Your task to perform on an android device: turn on location history Image 0: 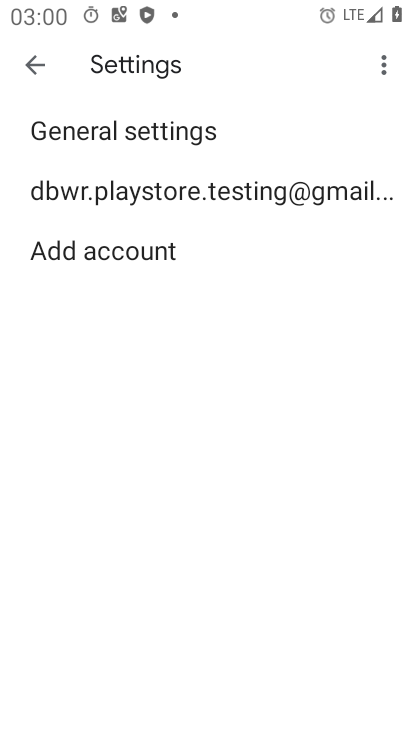
Step 0: press back button
Your task to perform on an android device: turn on location history Image 1: 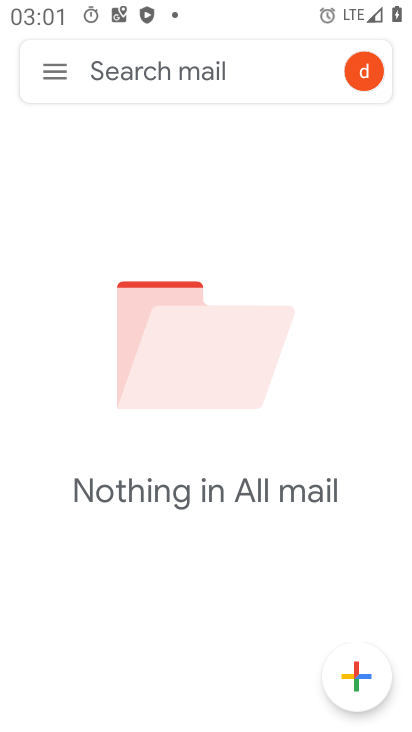
Step 1: press back button
Your task to perform on an android device: turn on location history Image 2: 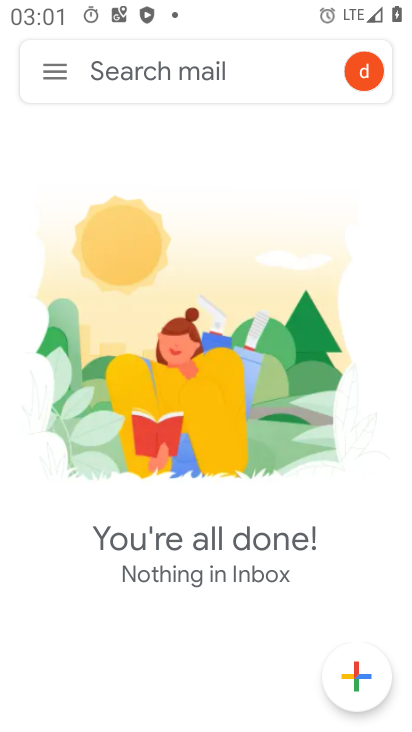
Step 2: press home button
Your task to perform on an android device: turn on location history Image 3: 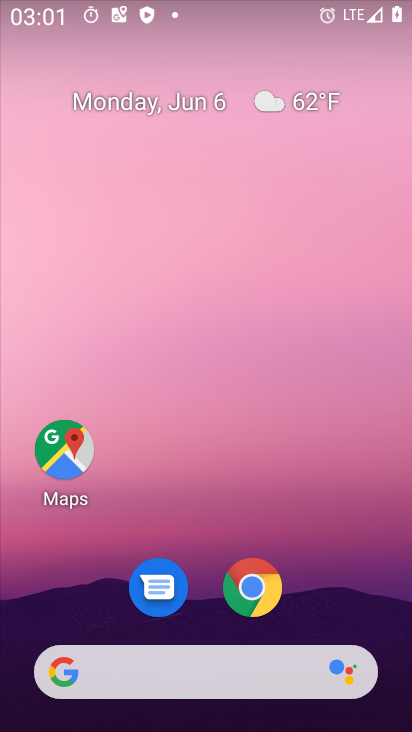
Step 3: drag from (367, 597) to (227, 51)
Your task to perform on an android device: turn on location history Image 4: 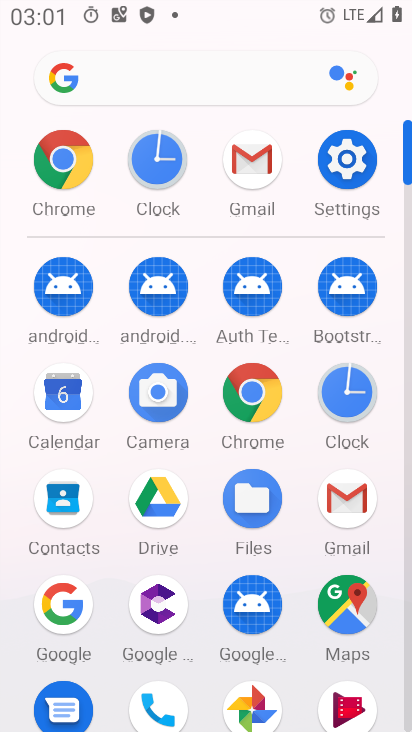
Step 4: drag from (17, 645) to (27, 272)
Your task to perform on an android device: turn on location history Image 5: 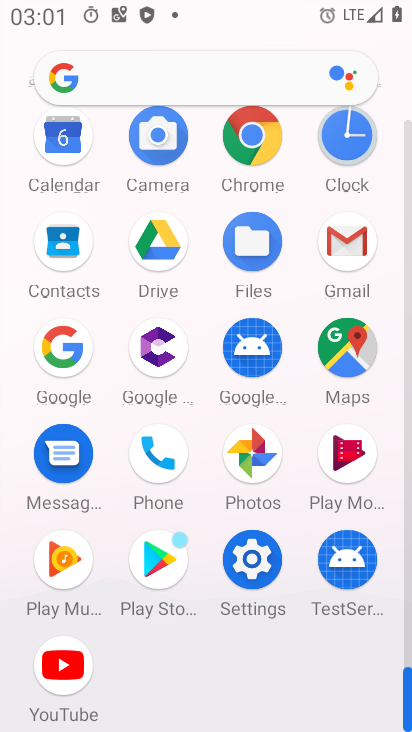
Step 5: click (249, 556)
Your task to perform on an android device: turn on location history Image 6: 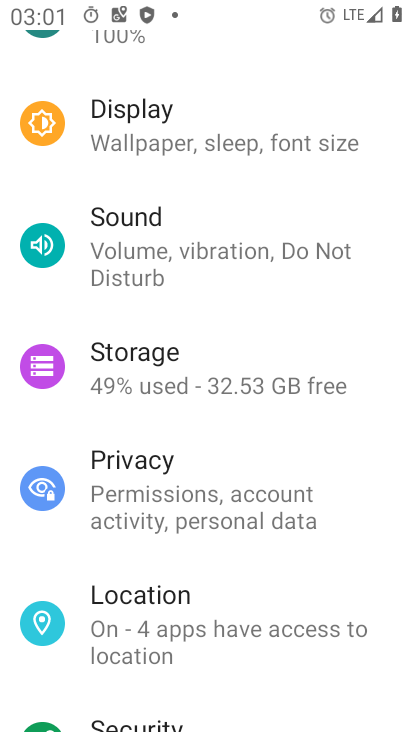
Step 6: click (172, 601)
Your task to perform on an android device: turn on location history Image 7: 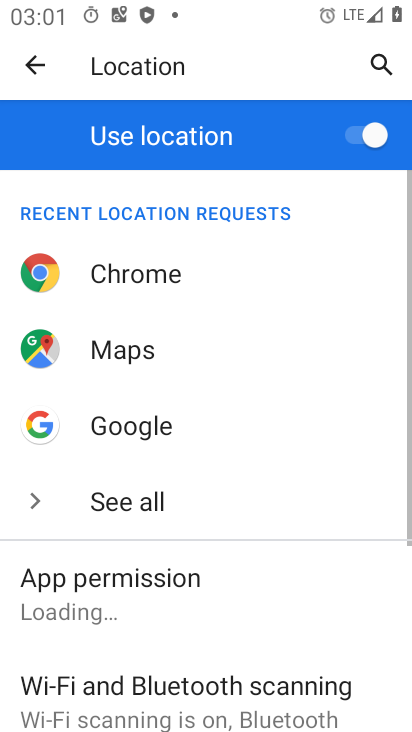
Step 7: drag from (253, 578) to (258, 200)
Your task to perform on an android device: turn on location history Image 8: 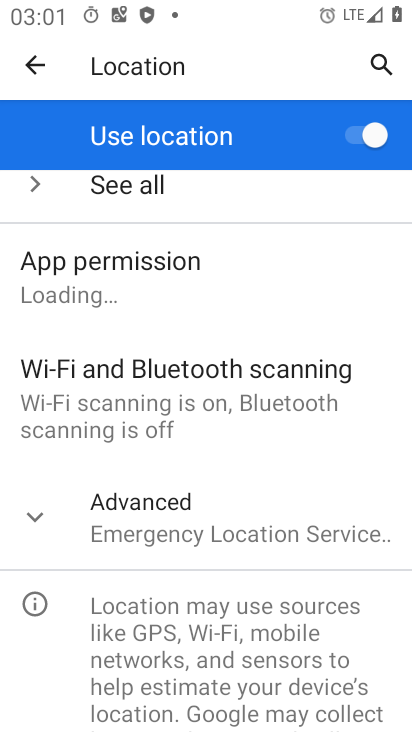
Step 8: click (107, 511)
Your task to perform on an android device: turn on location history Image 9: 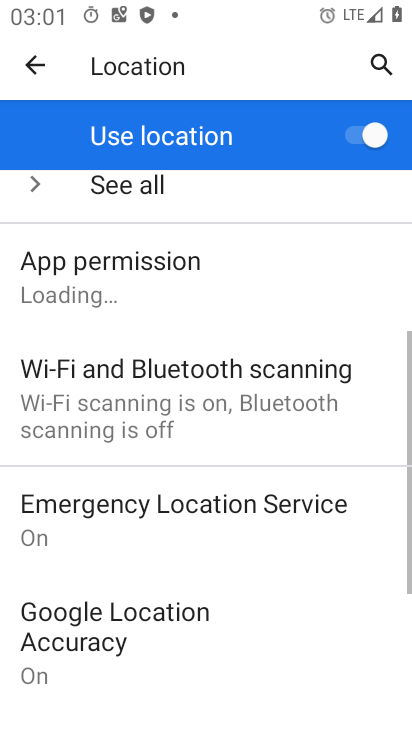
Step 9: drag from (188, 628) to (210, 249)
Your task to perform on an android device: turn on location history Image 10: 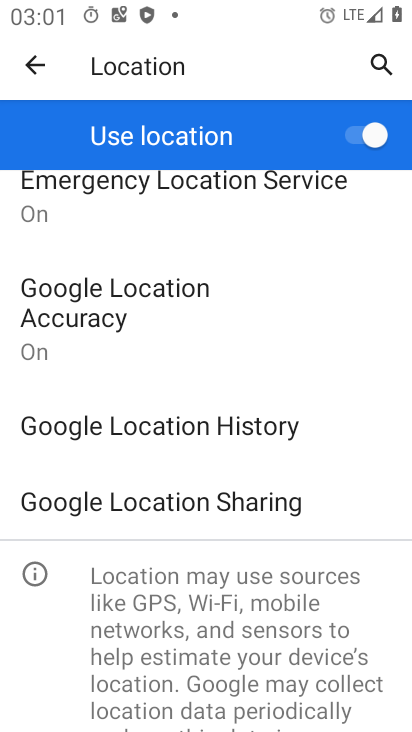
Step 10: click (242, 410)
Your task to perform on an android device: turn on location history Image 11: 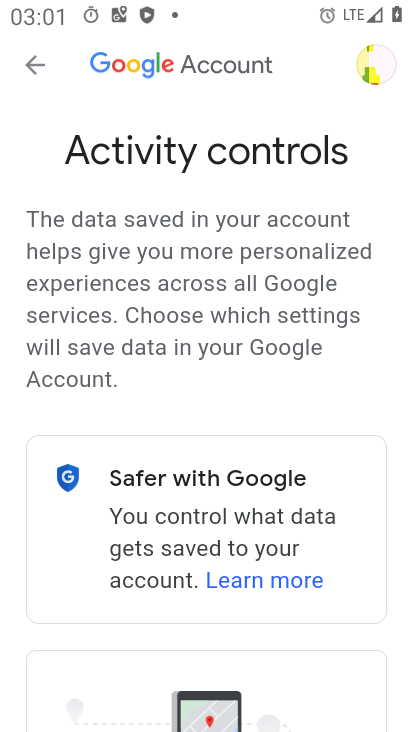
Step 11: task complete